Your task to perform on an android device: change the clock style Image 0: 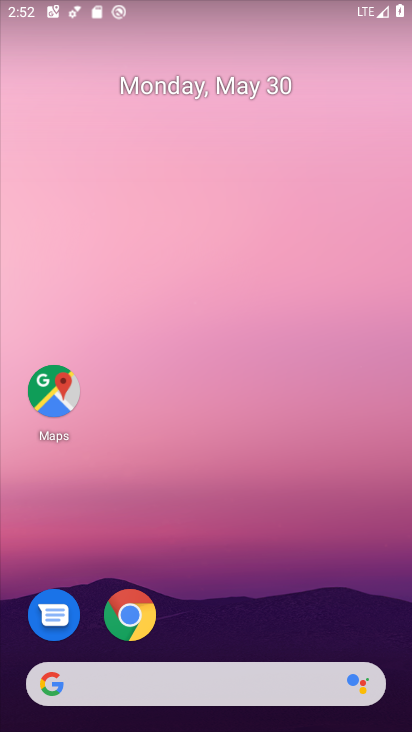
Step 0: drag from (206, 613) to (282, 6)
Your task to perform on an android device: change the clock style Image 1: 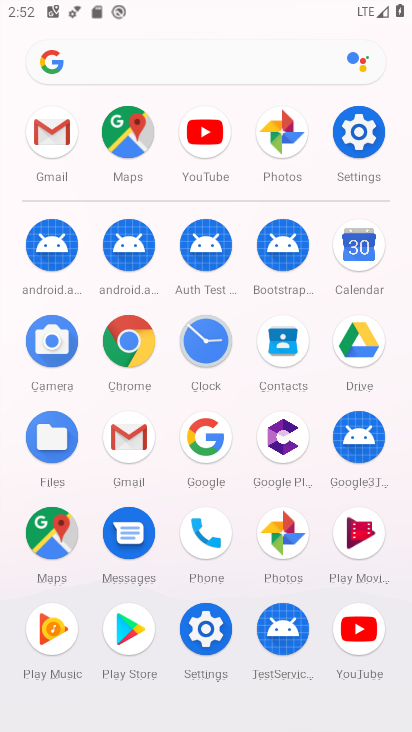
Step 1: click (206, 336)
Your task to perform on an android device: change the clock style Image 2: 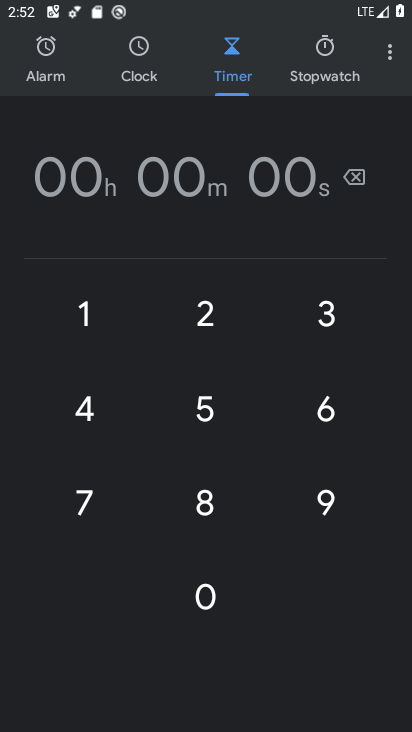
Step 2: click (391, 63)
Your task to perform on an android device: change the clock style Image 3: 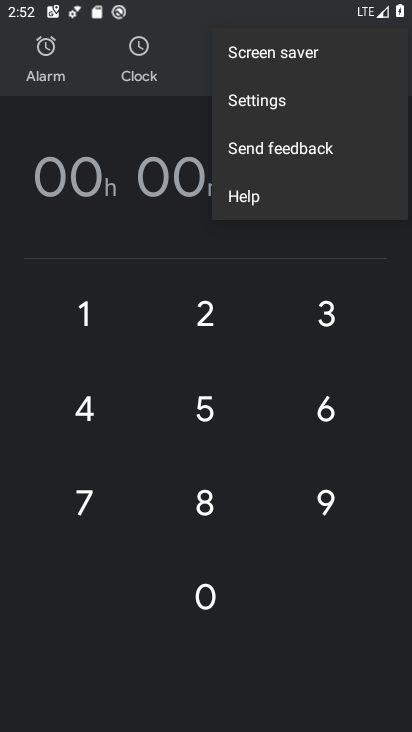
Step 3: click (333, 114)
Your task to perform on an android device: change the clock style Image 4: 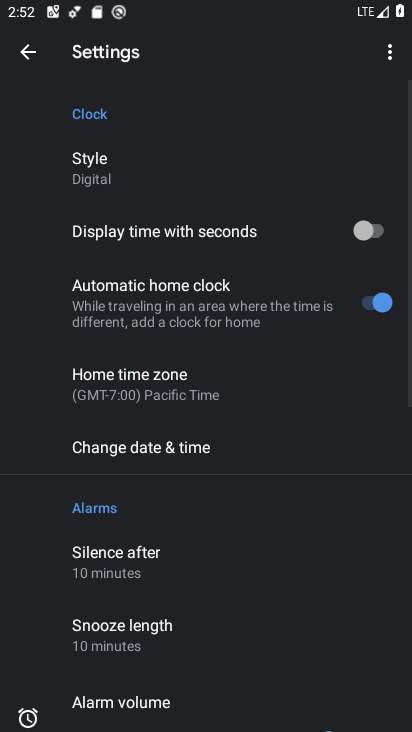
Step 4: click (126, 173)
Your task to perform on an android device: change the clock style Image 5: 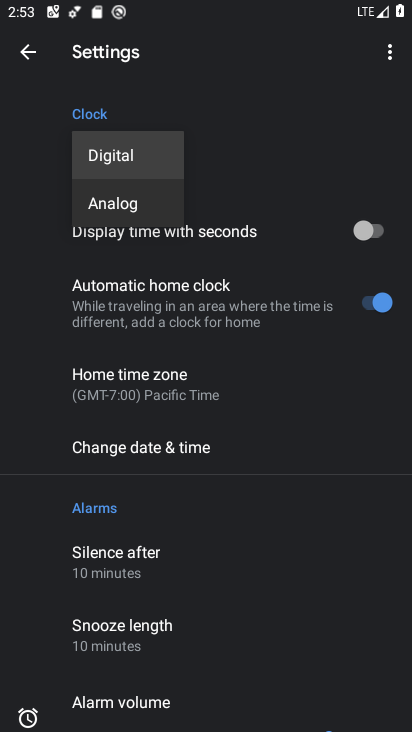
Step 5: click (131, 194)
Your task to perform on an android device: change the clock style Image 6: 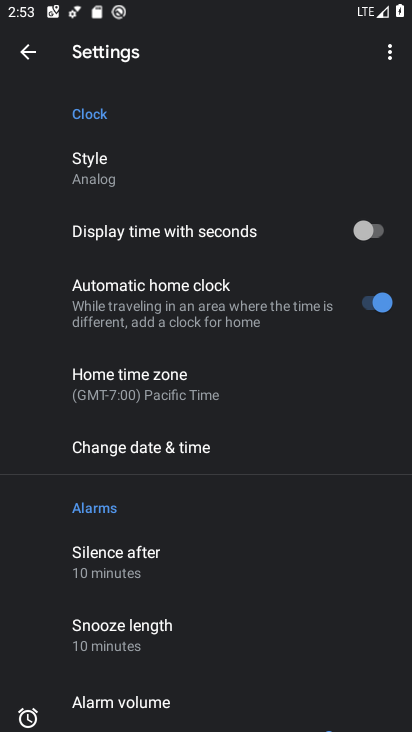
Step 6: click (31, 53)
Your task to perform on an android device: change the clock style Image 7: 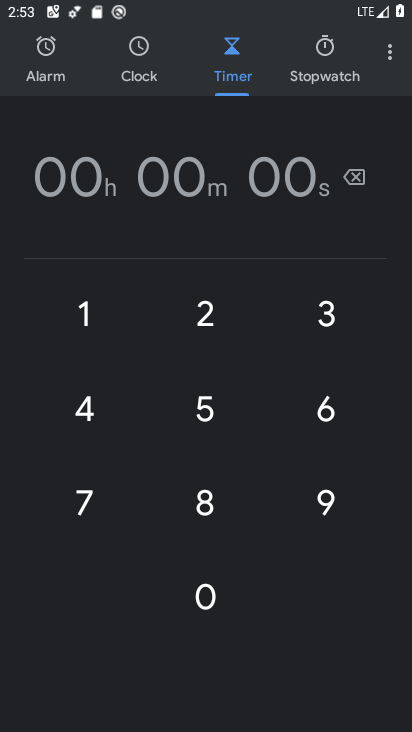
Step 7: click (133, 62)
Your task to perform on an android device: change the clock style Image 8: 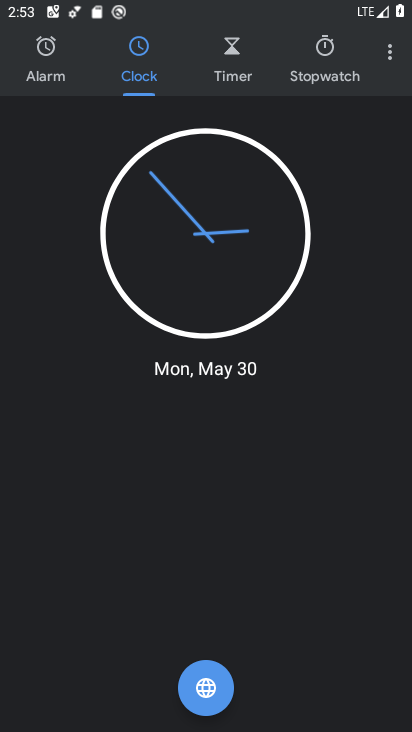
Step 8: task complete